Your task to perform on an android device: turn pop-ups off in chrome Image 0: 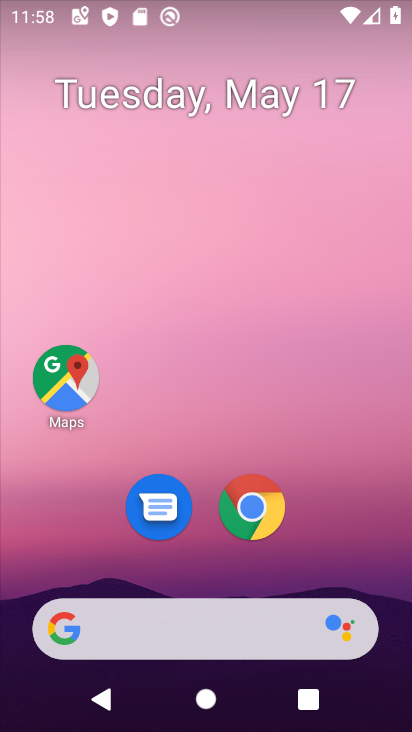
Step 0: drag from (219, 521) to (245, 206)
Your task to perform on an android device: turn pop-ups off in chrome Image 1: 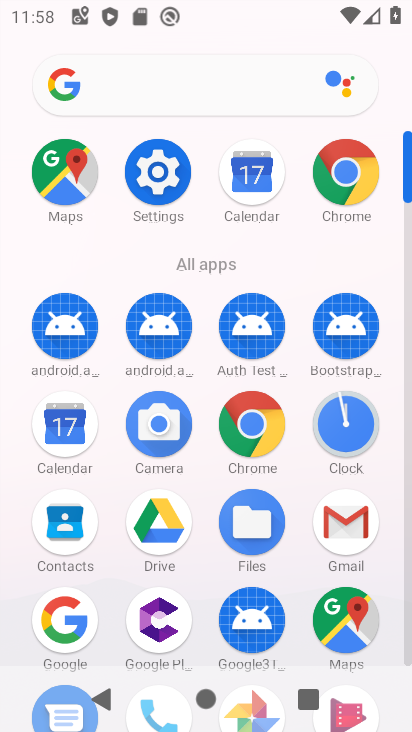
Step 1: click (350, 165)
Your task to perform on an android device: turn pop-ups off in chrome Image 2: 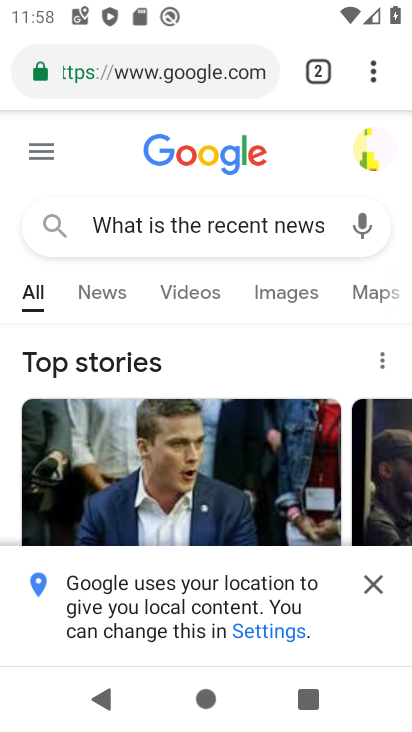
Step 2: click (366, 76)
Your task to perform on an android device: turn pop-ups off in chrome Image 3: 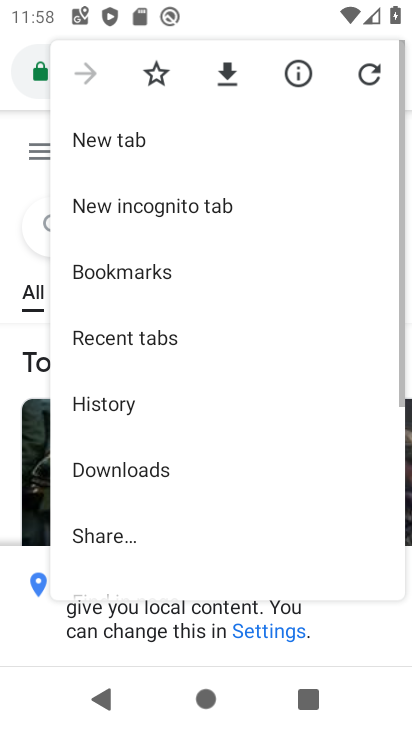
Step 3: drag from (214, 535) to (264, 129)
Your task to perform on an android device: turn pop-ups off in chrome Image 4: 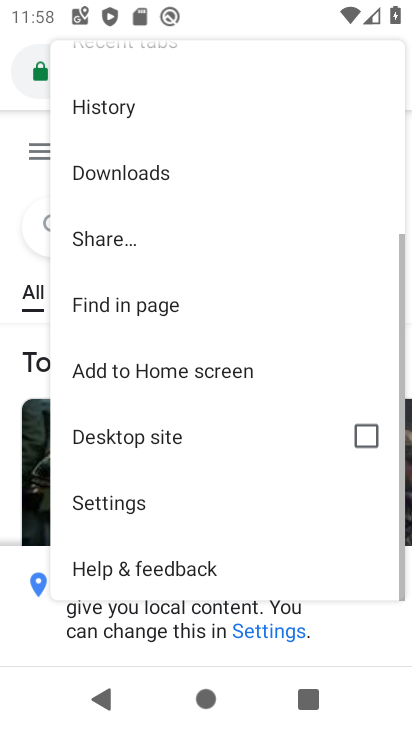
Step 4: click (144, 508)
Your task to perform on an android device: turn pop-ups off in chrome Image 5: 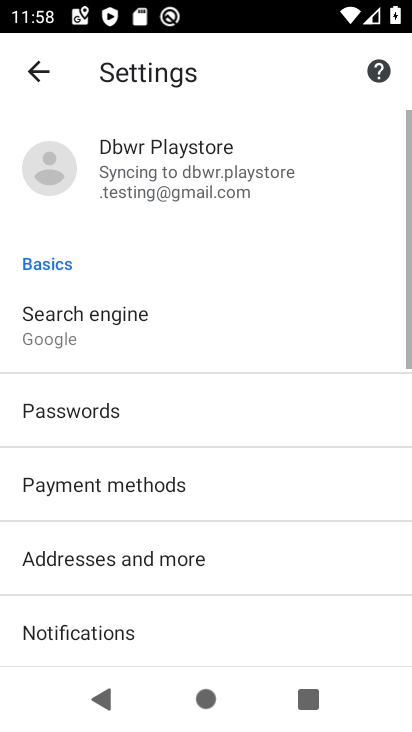
Step 5: drag from (173, 569) to (258, 158)
Your task to perform on an android device: turn pop-ups off in chrome Image 6: 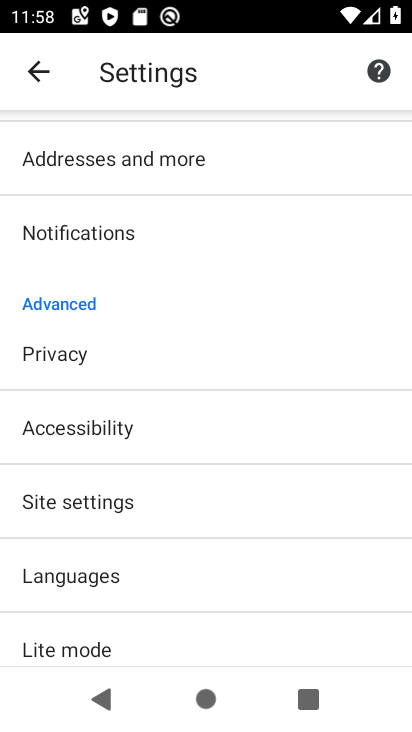
Step 6: click (114, 513)
Your task to perform on an android device: turn pop-ups off in chrome Image 7: 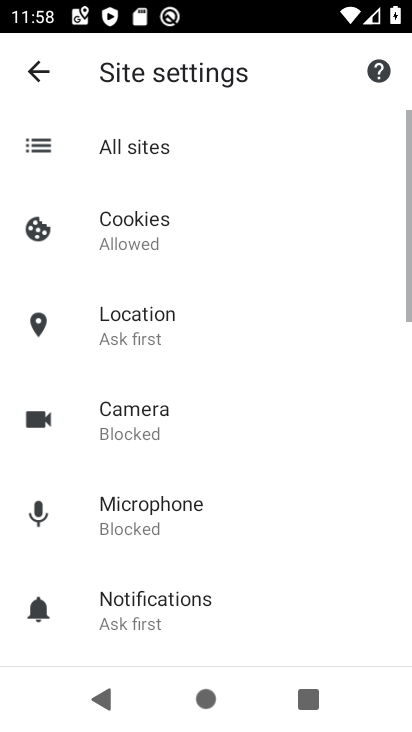
Step 7: drag from (159, 578) to (257, 210)
Your task to perform on an android device: turn pop-ups off in chrome Image 8: 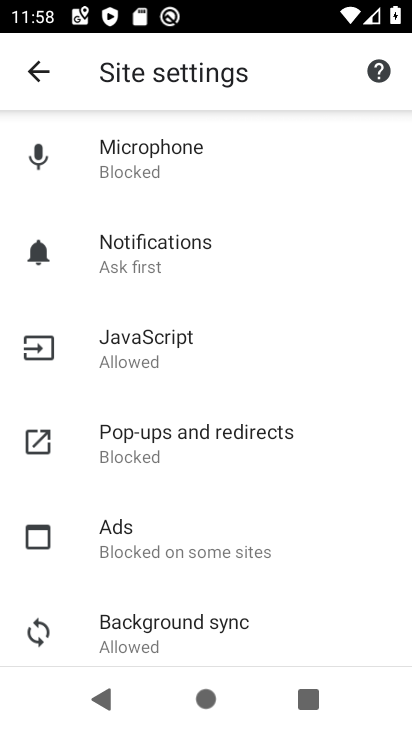
Step 8: click (173, 448)
Your task to perform on an android device: turn pop-ups off in chrome Image 9: 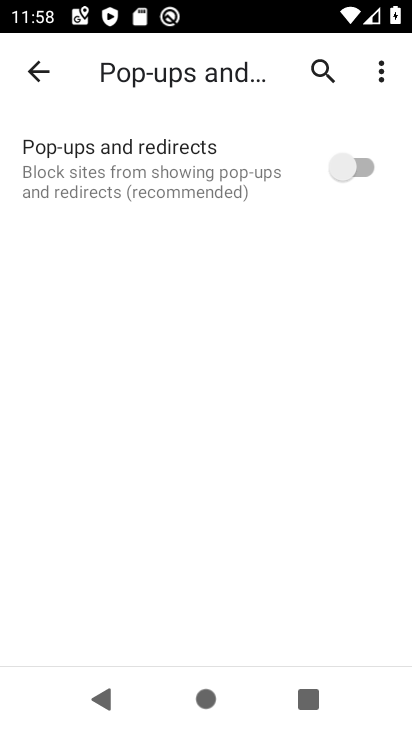
Step 9: task complete